Your task to perform on an android device: turn on notifications settings in the gmail app Image 0: 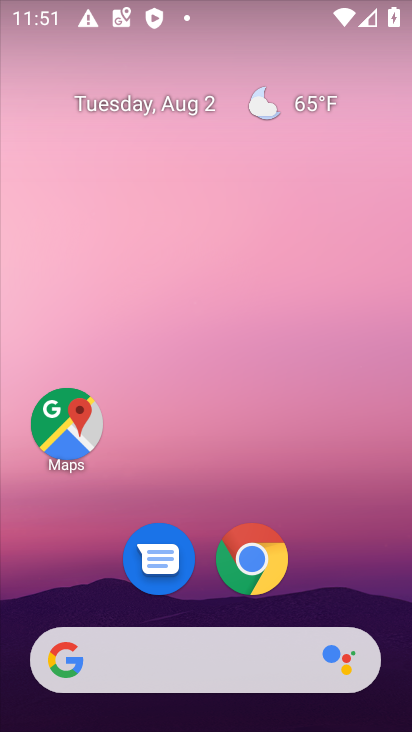
Step 0: drag from (208, 604) to (209, 0)
Your task to perform on an android device: turn on notifications settings in the gmail app Image 1: 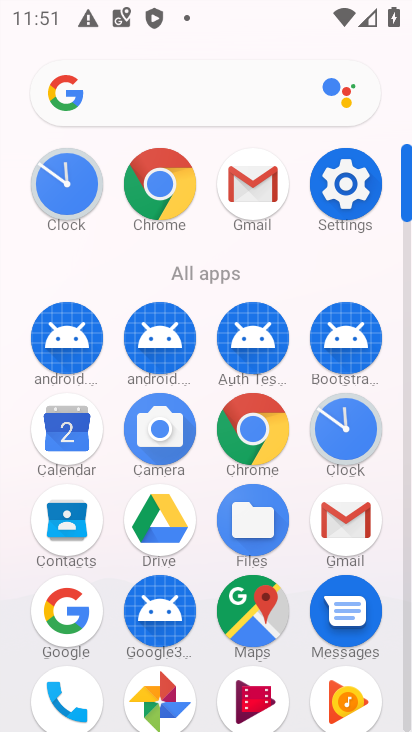
Step 1: click (257, 188)
Your task to perform on an android device: turn on notifications settings in the gmail app Image 2: 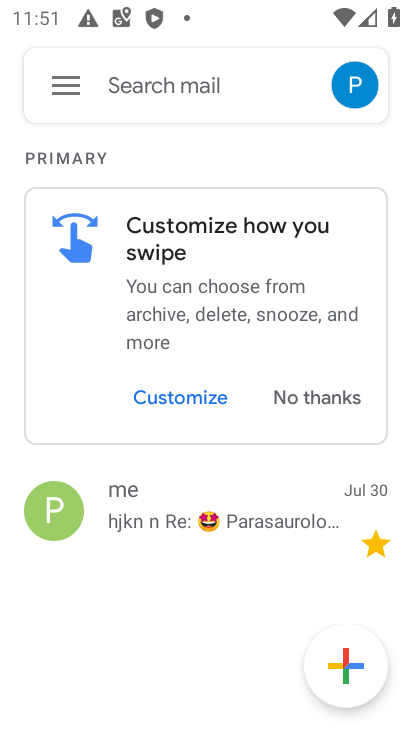
Step 2: click (70, 93)
Your task to perform on an android device: turn on notifications settings in the gmail app Image 3: 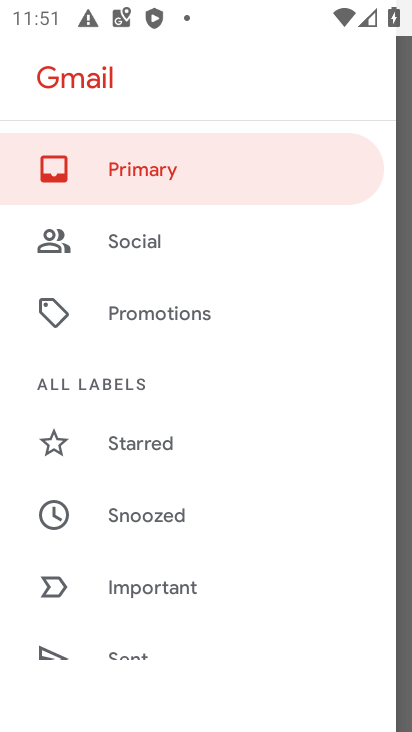
Step 3: drag from (207, 634) to (193, 336)
Your task to perform on an android device: turn on notifications settings in the gmail app Image 4: 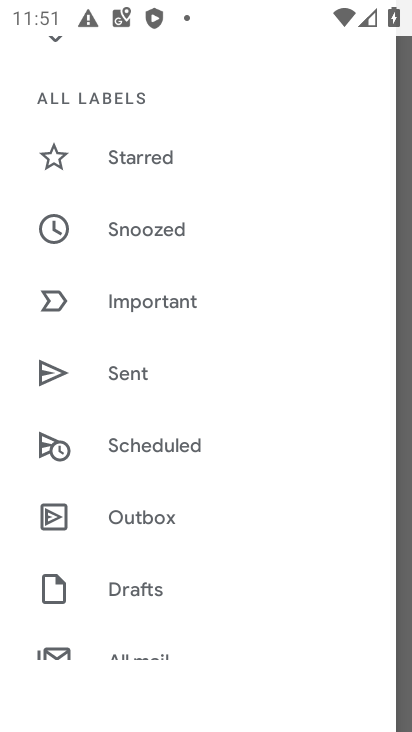
Step 4: drag from (164, 633) to (158, 268)
Your task to perform on an android device: turn on notifications settings in the gmail app Image 5: 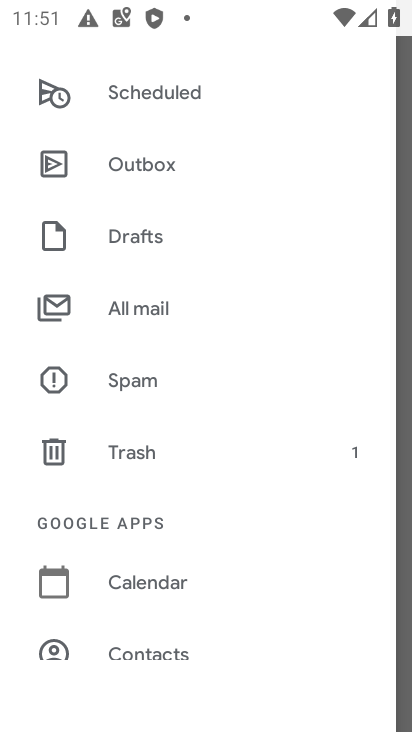
Step 5: drag from (164, 614) to (175, 285)
Your task to perform on an android device: turn on notifications settings in the gmail app Image 6: 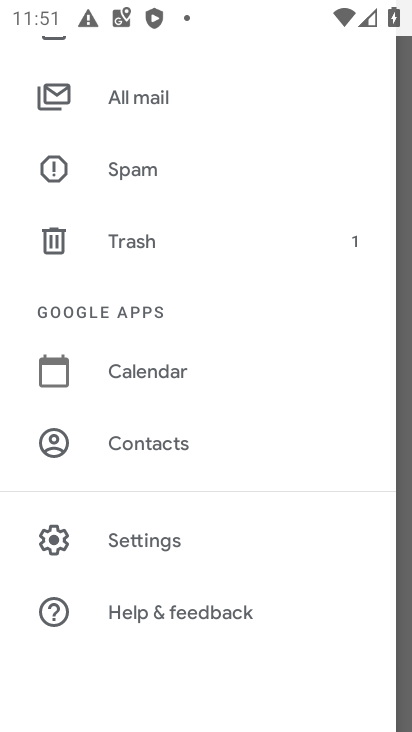
Step 6: click (142, 539)
Your task to perform on an android device: turn on notifications settings in the gmail app Image 7: 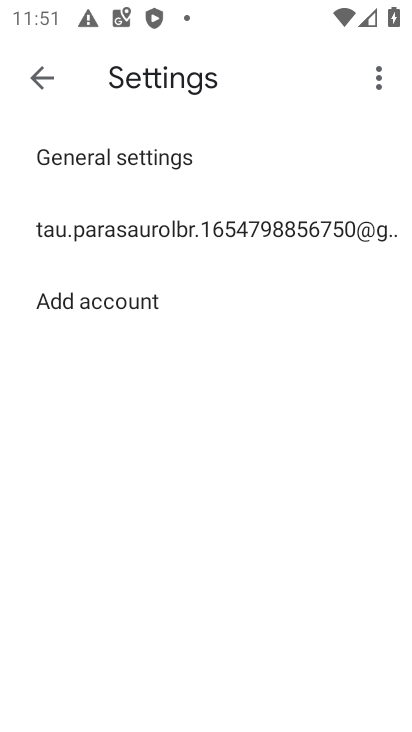
Step 7: click (171, 229)
Your task to perform on an android device: turn on notifications settings in the gmail app Image 8: 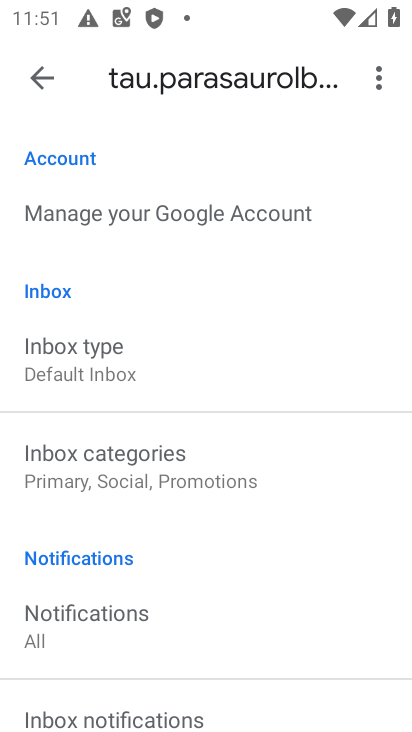
Step 8: task complete